Your task to perform on an android device: open chrome privacy settings Image 0: 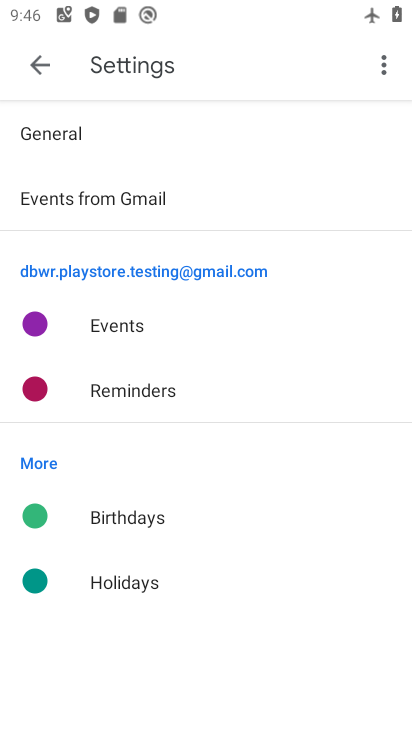
Step 0: press home button
Your task to perform on an android device: open chrome privacy settings Image 1: 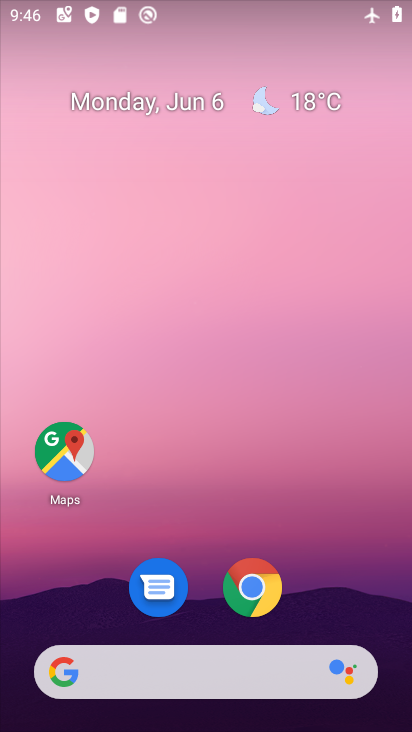
Step 1: click (249, 588)
Your task to perform on an android device: open chrome privacy settings Image 2: 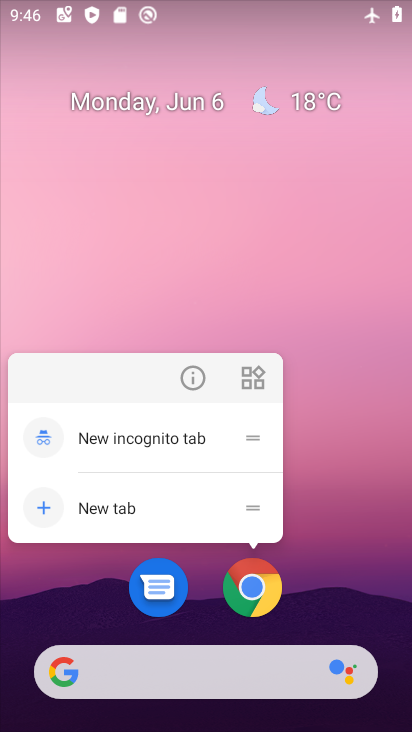
Step 2: click (255, 586)
Your task to perform on an android device: open chrome privacy settings Image 3: 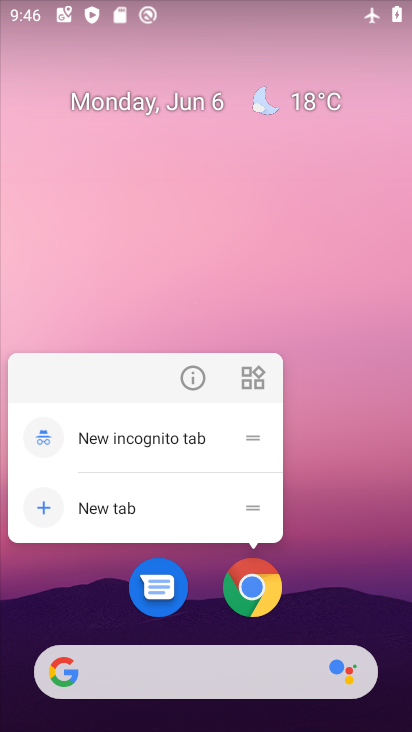
Step 3: click (346, 584)
Your task to perform on an android device: open chrome privacy settings Image 4: 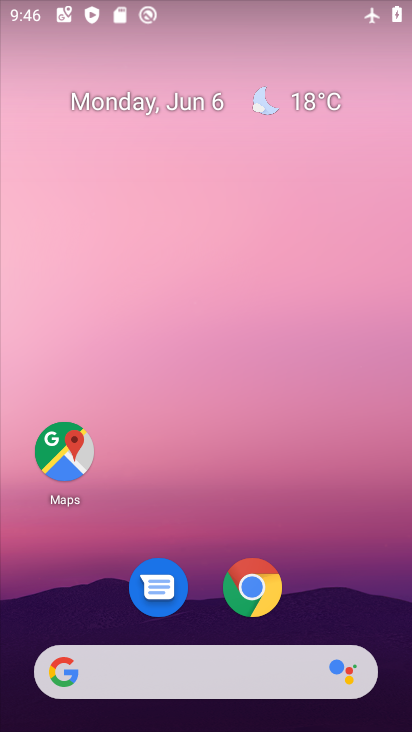
Step 4: drag from (343, 588) to (326, 171)
Your task to perform on an android device: open chrome privacy settings Image 5: 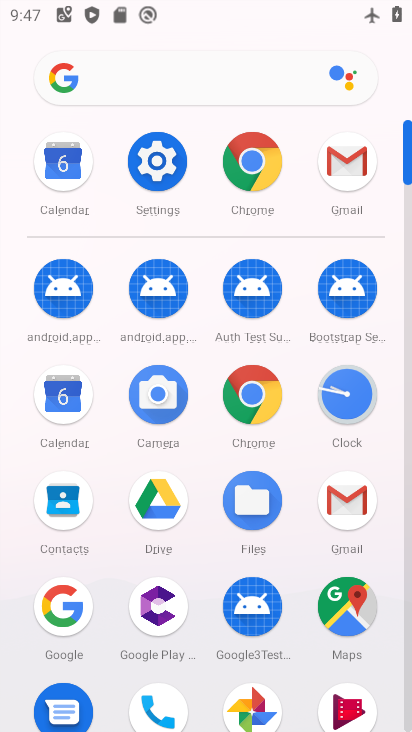
Step 5: click (253, 391)
Your task to perform on an android device: open chrome privacy settings Image 6: 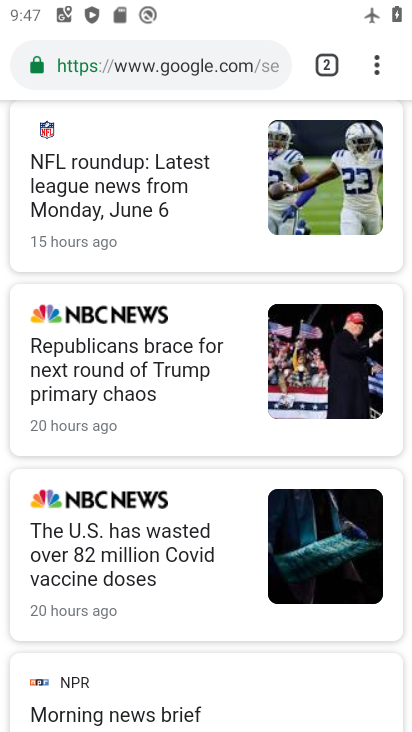
Step 6: click (383, 65)
Your task to perform on an android device: open chrome privacy settings Image 7: 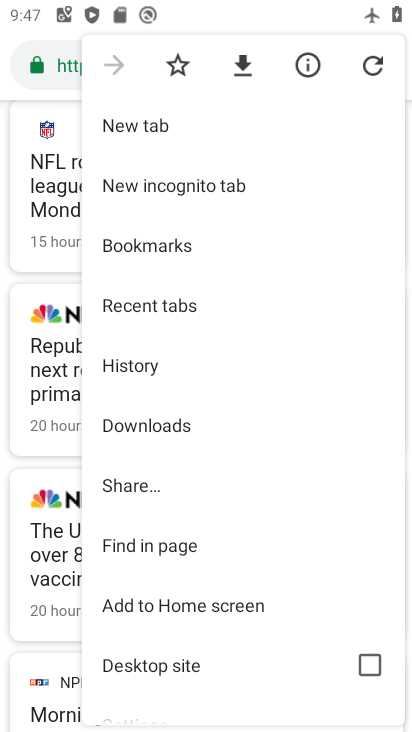
Step 7: drag from (197, 650) to (266, 249)
Your task to perform on an android device: open chrome privacy settings Image 8: 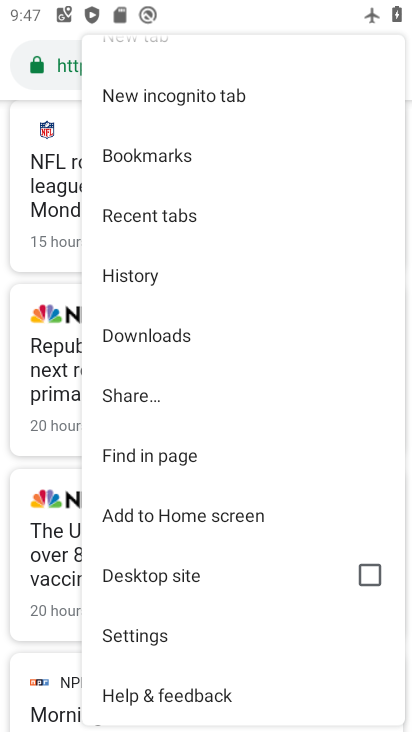
Step 8: click (116, 642)
Your task to perform on an android device: open chrome privacy settings Image 9: 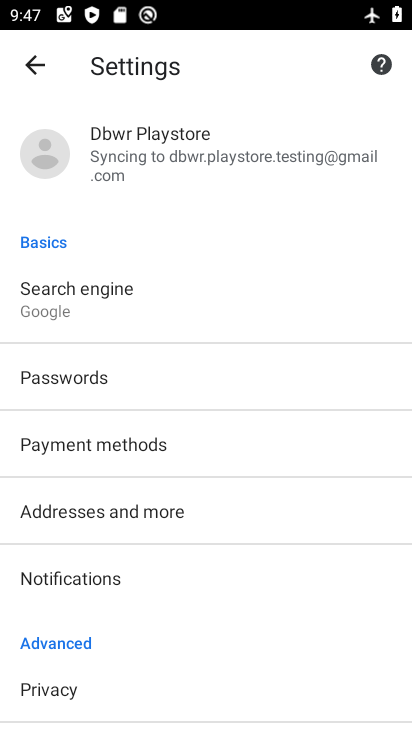
Step 9: click (51, 689)
Your task to perform on an android device: open chrome privacy settings Image 10: 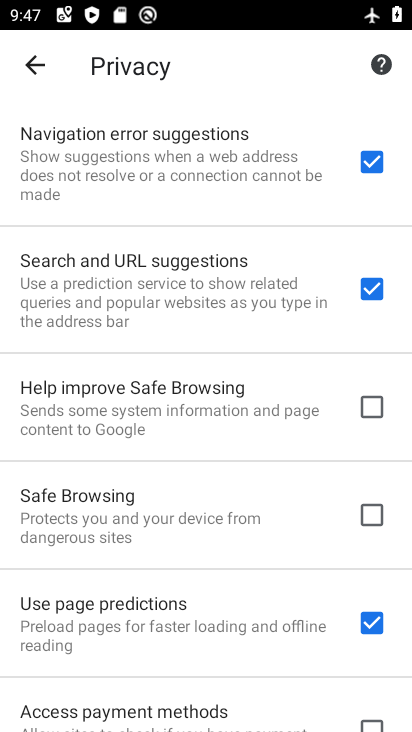
Step 10: task complete